Your task to perform on an android device: Open battery settings Image 0: 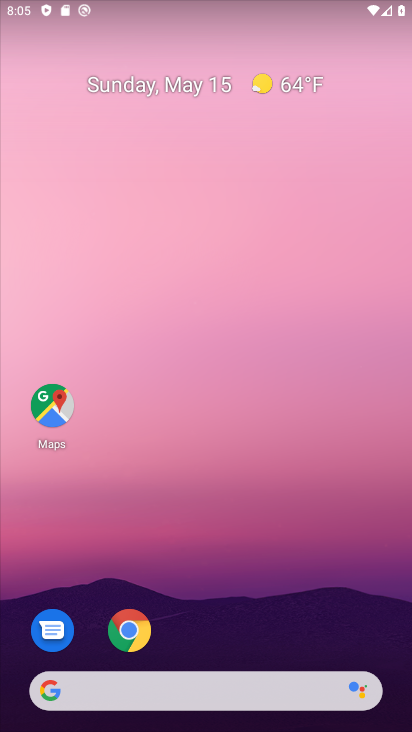
Step 0: drag from (313, 567) to (250, 42)
Your task to perform on an android device: Open battery settings Image 1: 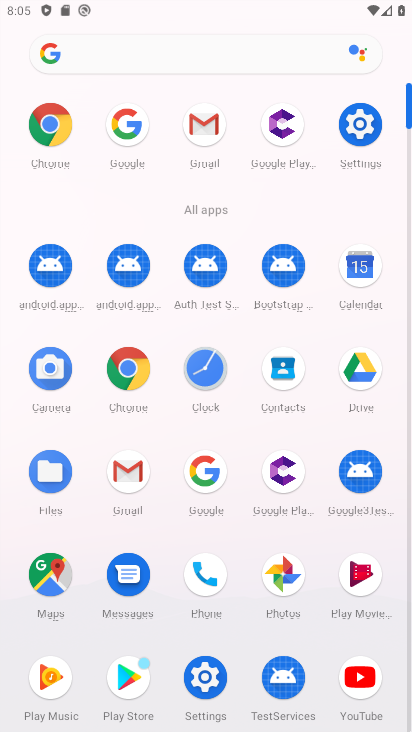
Step 1: click (348, 126)
Your task to perform on an android device: Open battery settings Image 2: 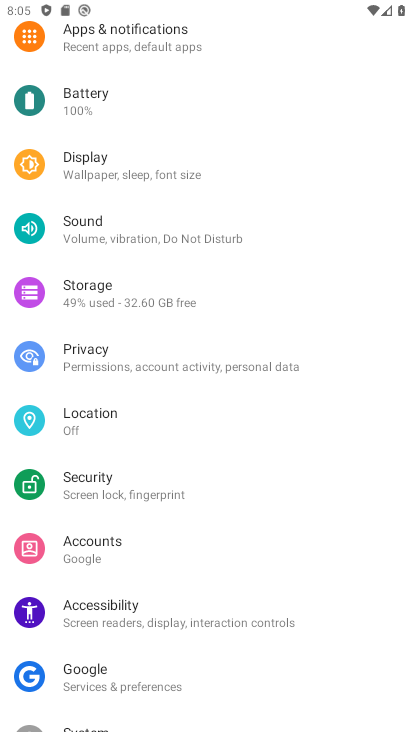
Step 2: click (100, 102)
Your task to perform on an android device: Open battery settings Image 3: 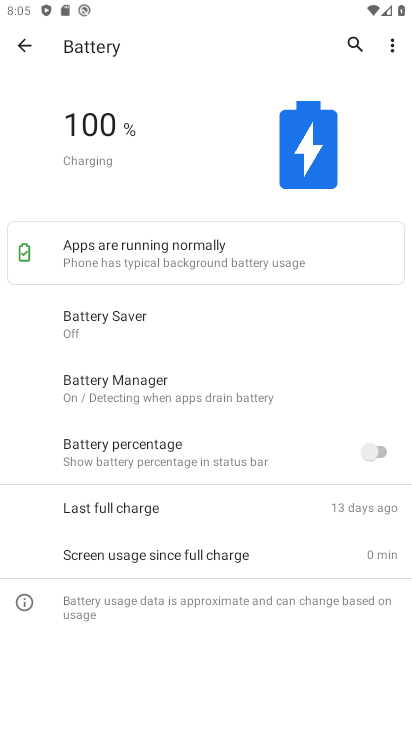
Step 3: task complete